Your task to perform on an android device: delete the emails in spam in the gmail app Image 0: 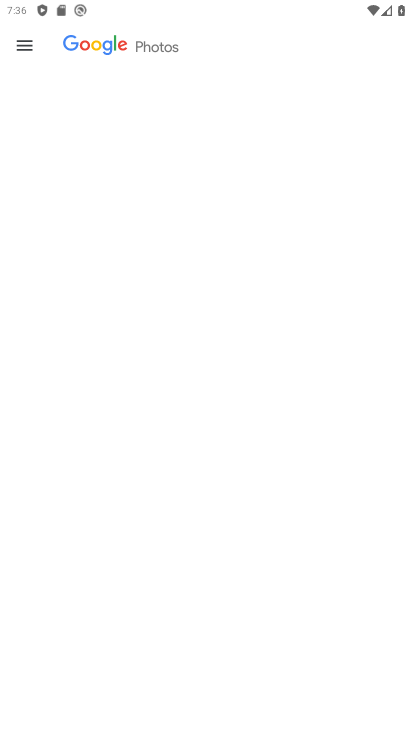
Step 0: press home button
Your task to perform on an android device: delete the emails in spam in the gmail app Image 1: 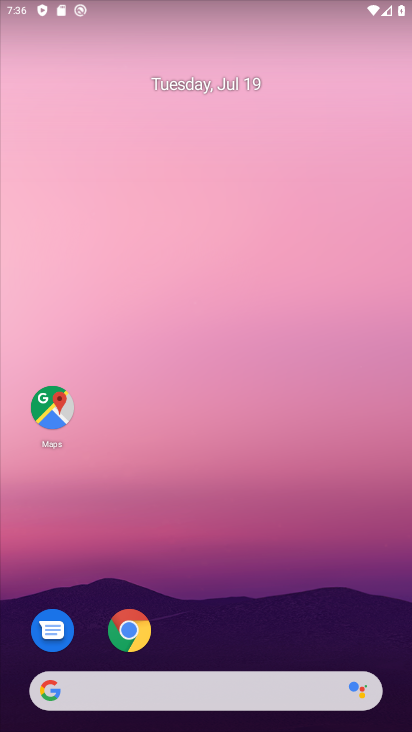
Step 1: drag from (208, 648) to (257, 49)
Your task to perform on an android device: delete the emails in spam in the gmail app Image 2: 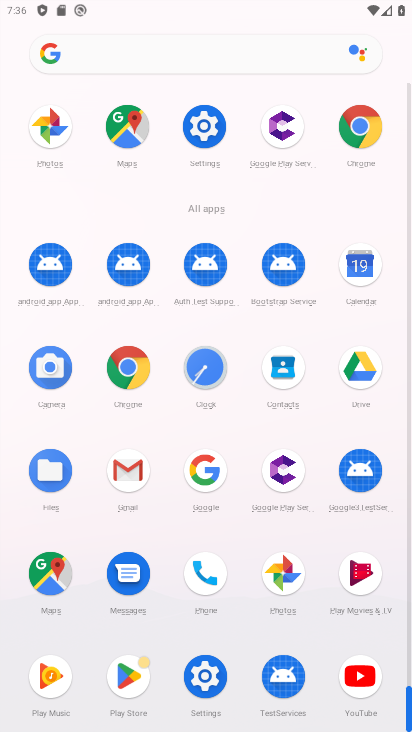
Step 2: click (120, 463)
Your task to perform on an android device: delete the emails in spam in the gmail app Image 3: 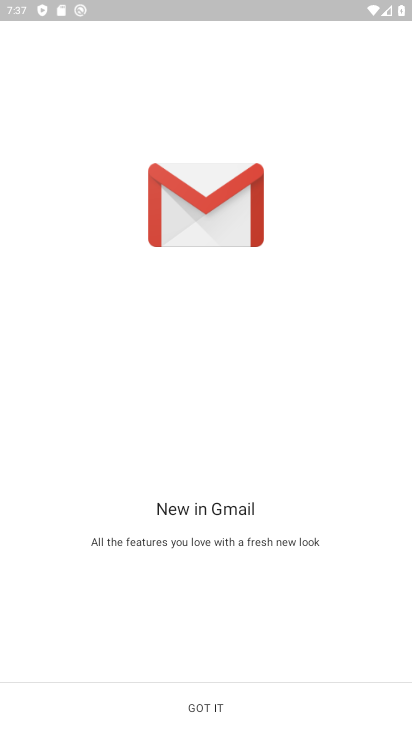
Step 3: click (152, 705)
Your task to perform on an android device: delete the emails in spam in the gmail app Image 4: 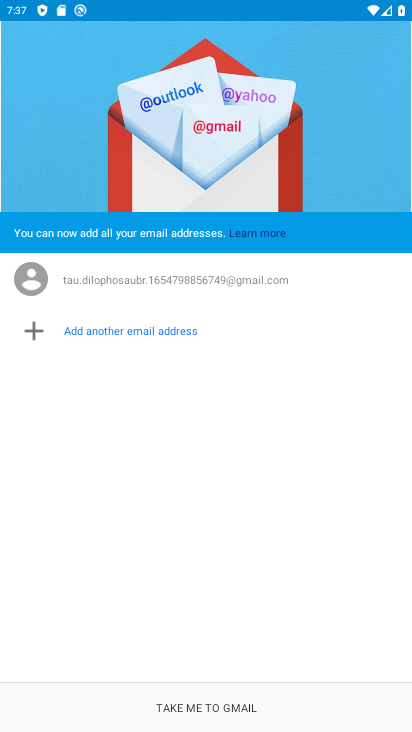
Step 4: click (186, 710)
Your task to perform on an android device: delete the emails in spam in the gmail app Image 5: 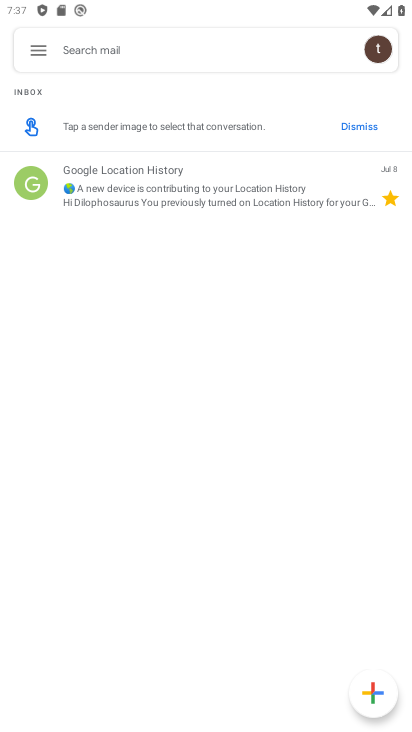
Step 5: click (38, 57)
Your task to perform on an android device: delete the emails in spam in the gmail app Image 6: 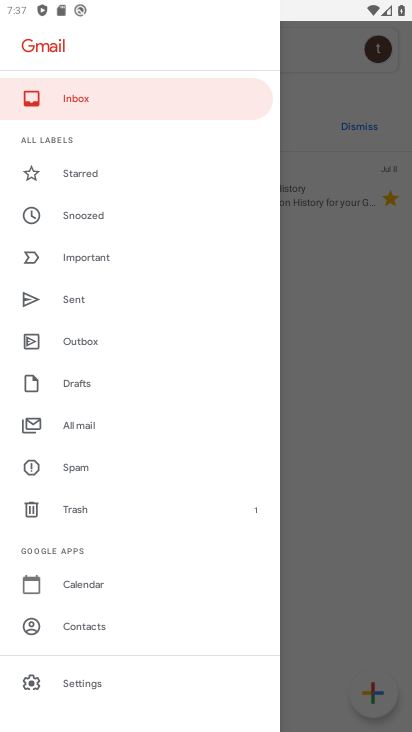
Step 6: click (74, 459)
Your task to perform on an android device: delete the emails in spam in the gmail app Image 7: 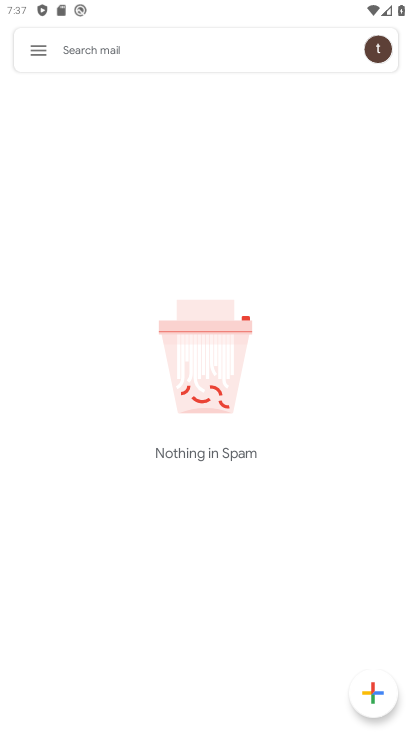
Step 7: task complete